Your task to perform on an android device: change alarm snooze length Image 0: 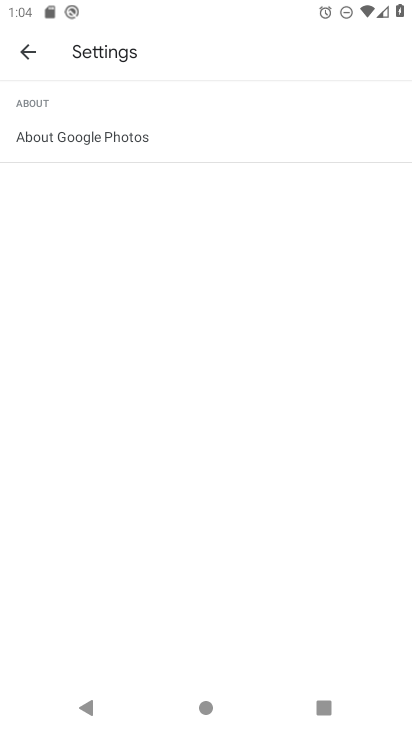
Step 0: press home button
Your task to perform on an android device: change alarm snooze length Image 1: 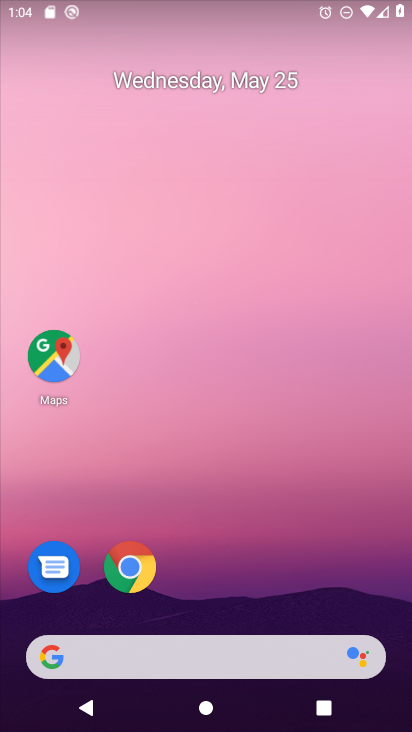
Step 1: drag from (387, 556) to (376, 273)
Your task to perform on an android device: change alarm snooze length Image 2: 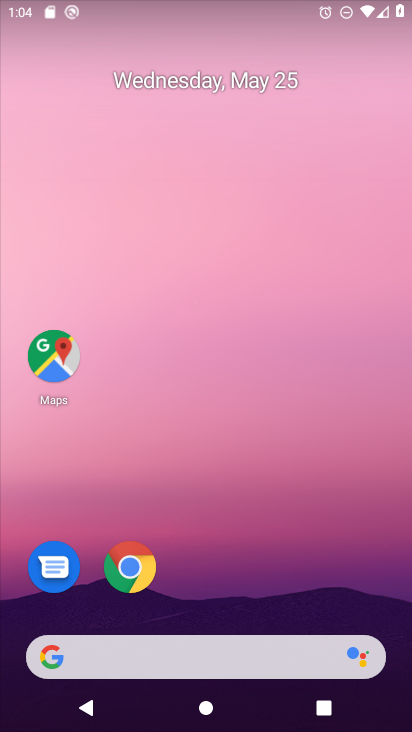
Step 2: drag from (393, 635) to (379, 345)
Your task to perform on an android device: change alarm snooze length Image 3: 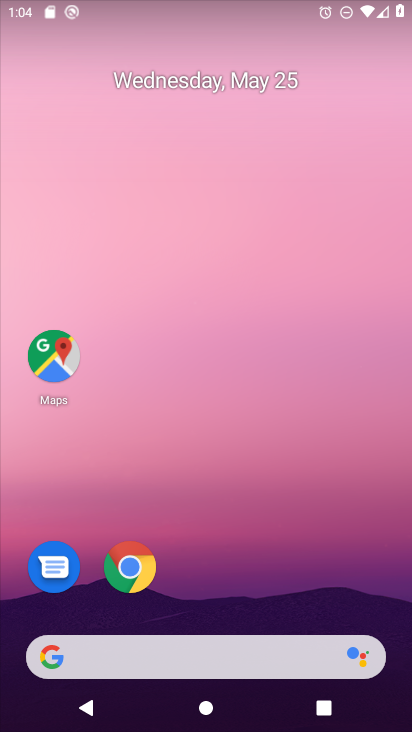
Step 3: drag from (397, 655) to (384, 298)
Your task to perform on an android device: change alarm snooze length Image 4: 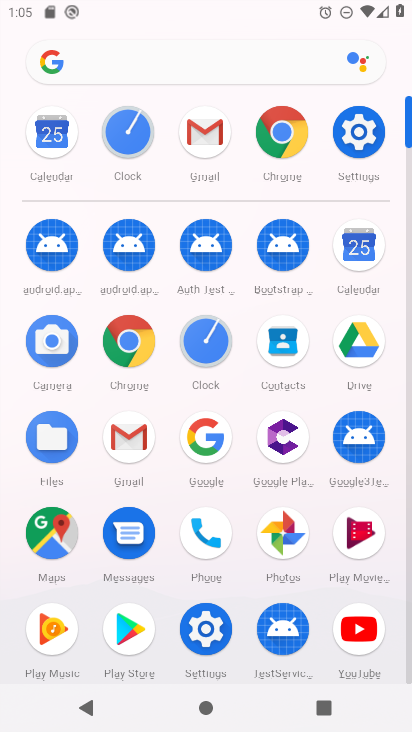
Step 4: click (193, 344)
Your task to perform on an android device: change alarm snooze length Image 5: 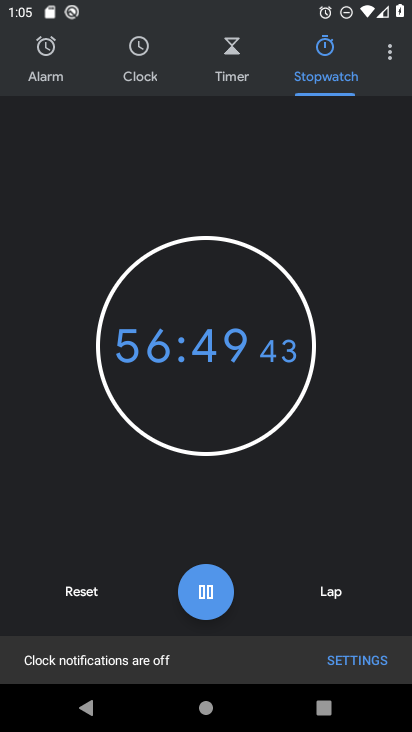
Step 5: click (387, 49)
Your task to perform on an android device: change alarm snooze length Image 6: 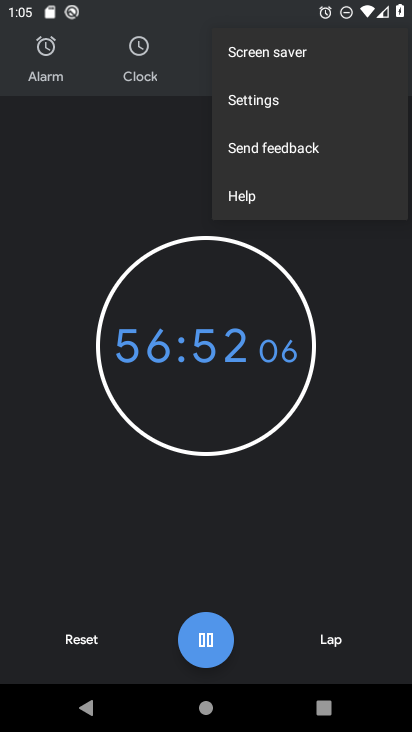
Step 6: click (243, 102)
Your task to perform on an android device: change alarm snooze length Image 7: 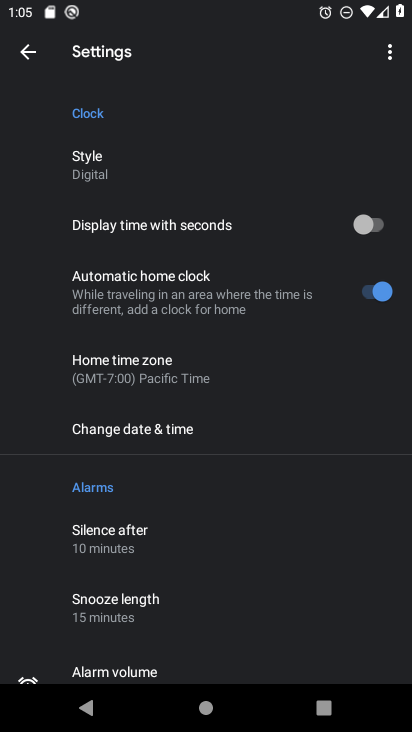
Step 7: click (85, 605)
Your task to perform on an android device: change alarm snooze length Image 8: 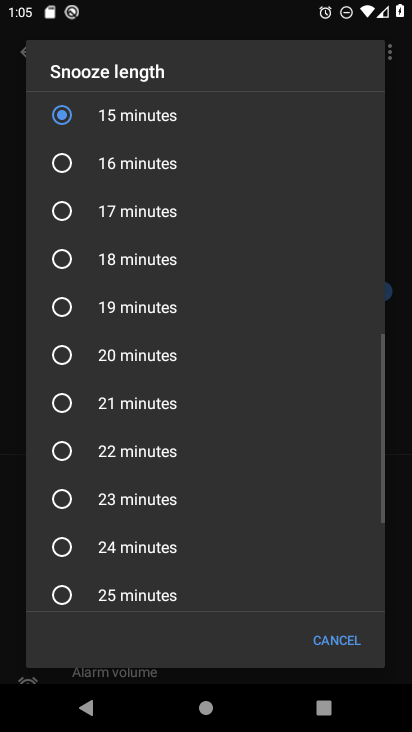
Step 8: click (66, 453)
Your task to perform on an android device: change alarm snooze length Image 9: 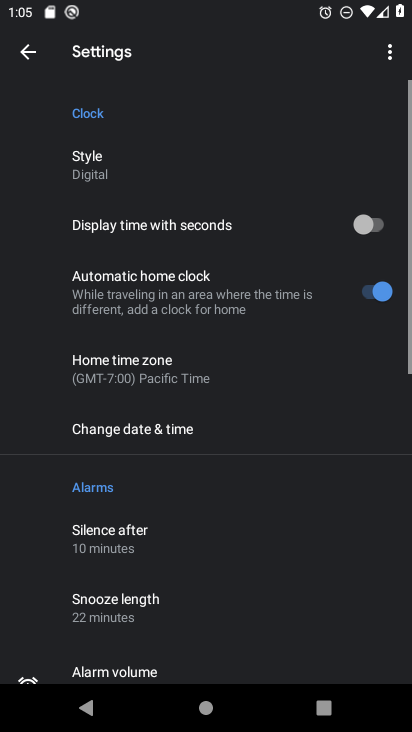
Step 9: task complete